Your task to perform on an android device: What's on the menu at Burger King? Image 0: 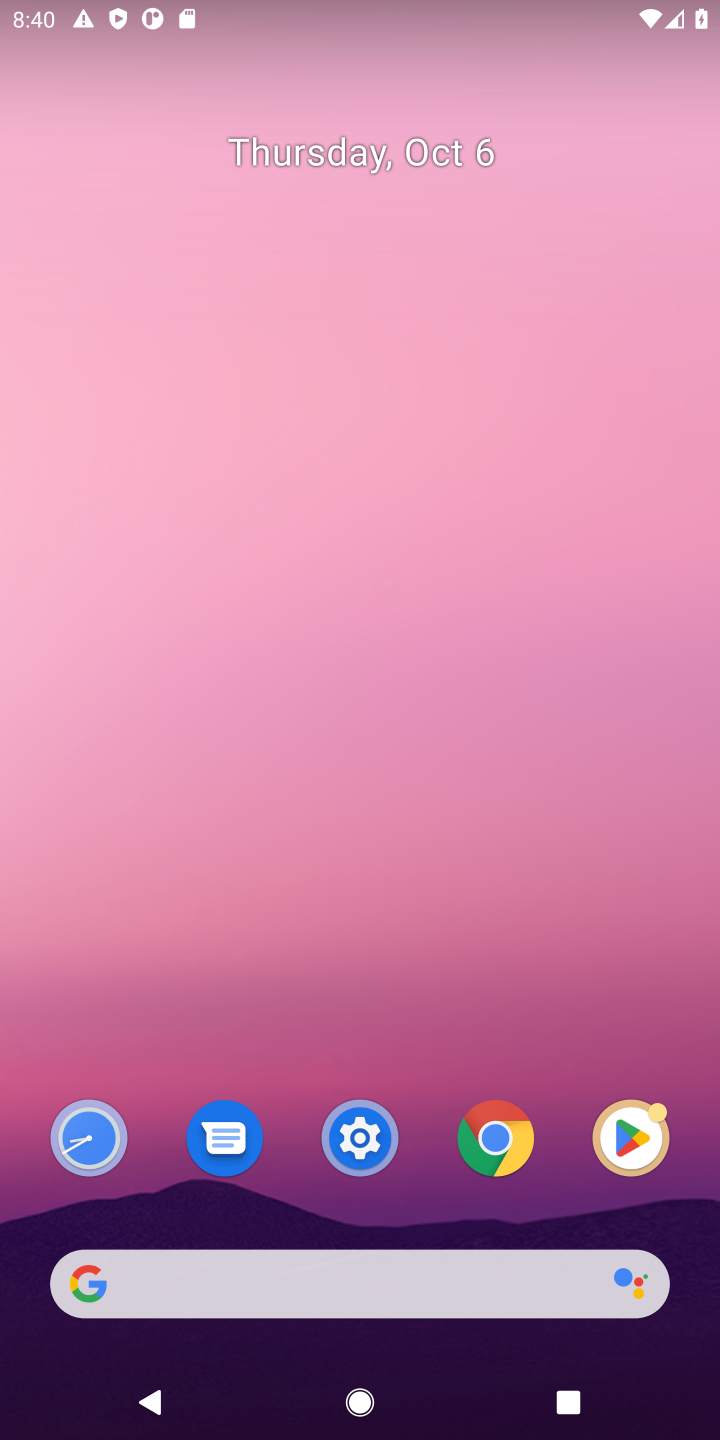
Step 0: click (268, 1293)
Your task to perform on an android device: What's on the menu at Burger King? Image 1: 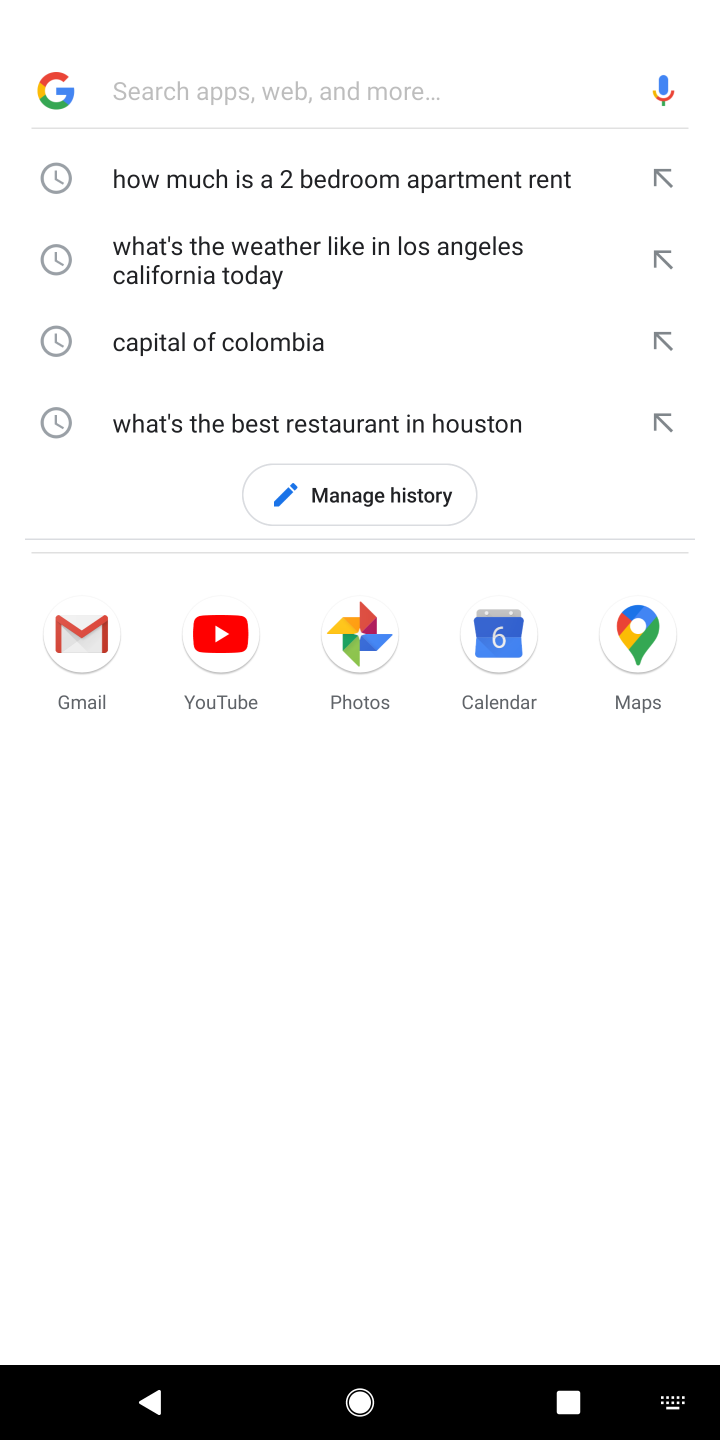
Step 1: type "Whats on the menu at burger king"
Your task to perform on an android device: What's on the menu at Burger King? Image 2: 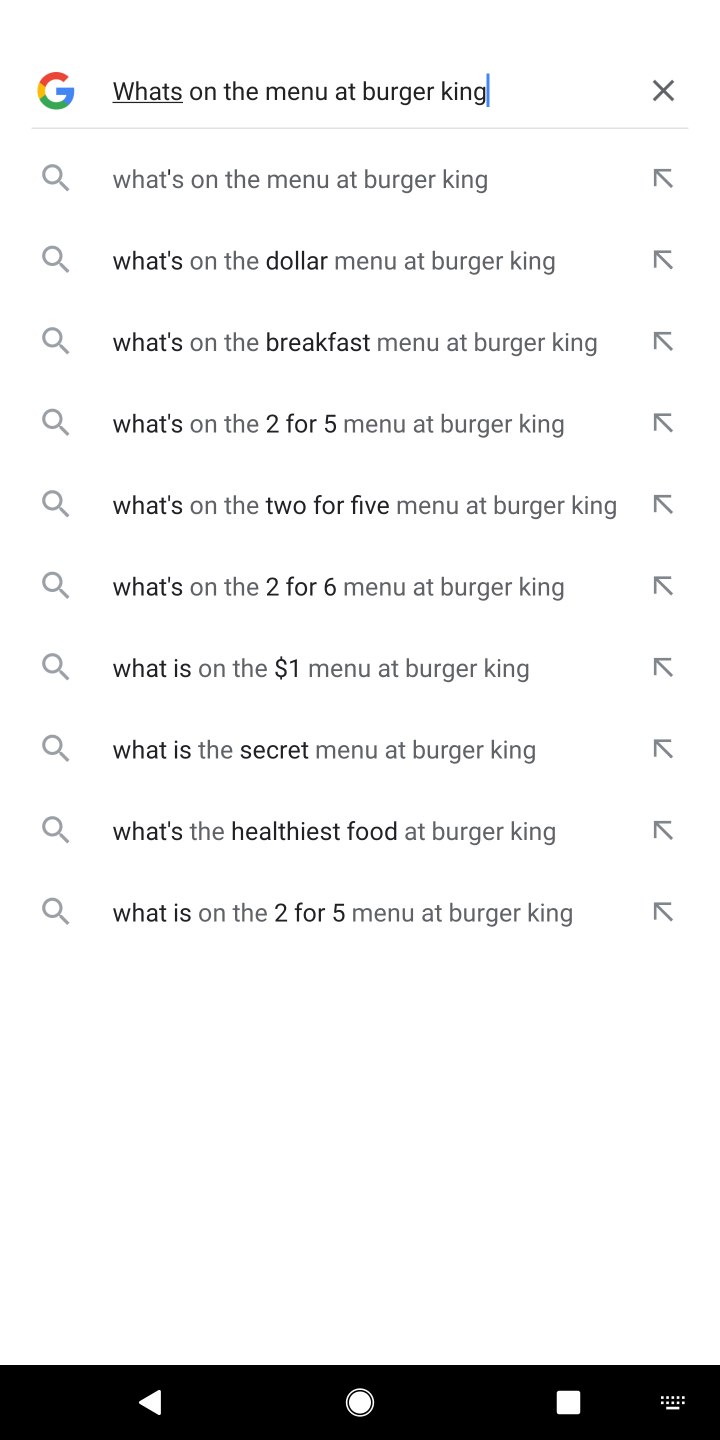
Step 2: click (292, 173)
Your task to perform on an android device: What's on the menu at Burger King? Image 3: 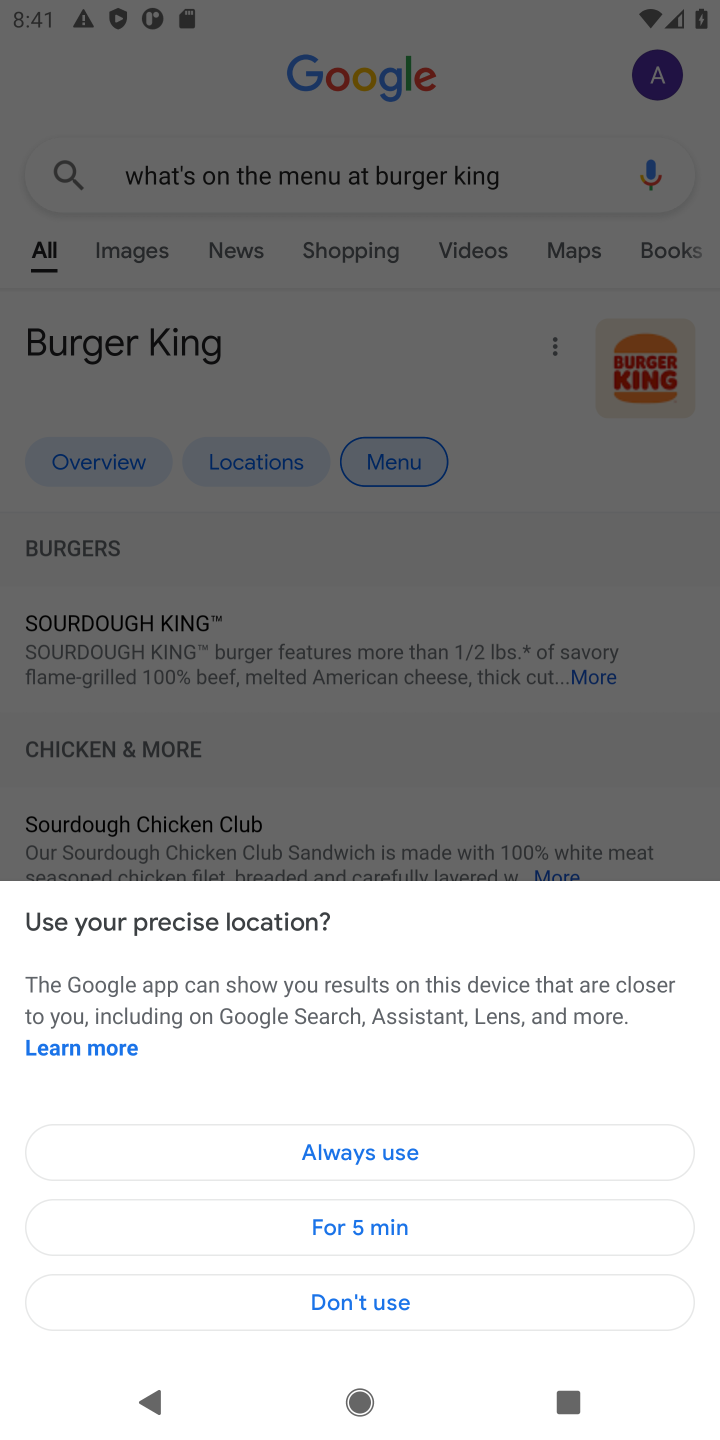
Step 3: click (366, 1160)
Your task to perform on an android device: What's on the menu at Burger King? Image 4: 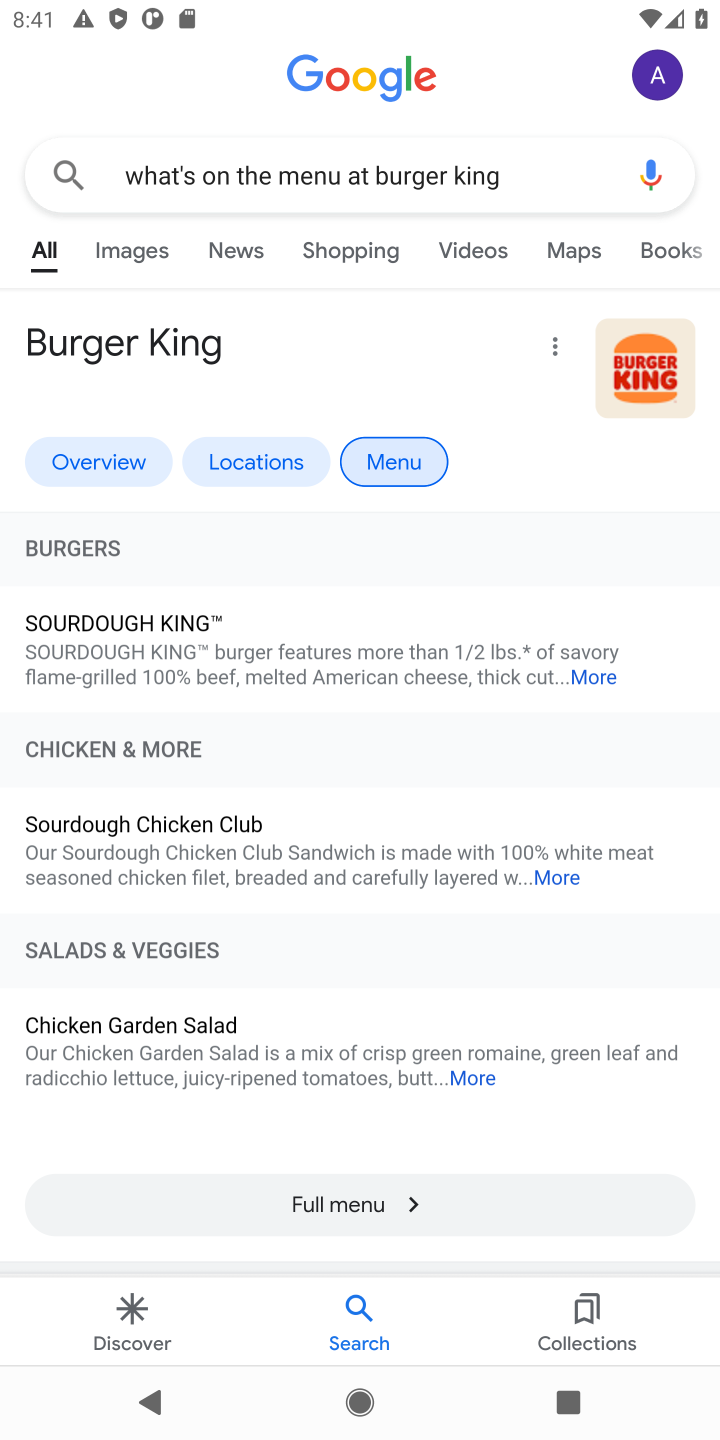
Step 4: task complete